Your task to perform on an android device: Search for logitech g910 on walmart, select the first entry, add it to the cart, then select checkout. Image 0: 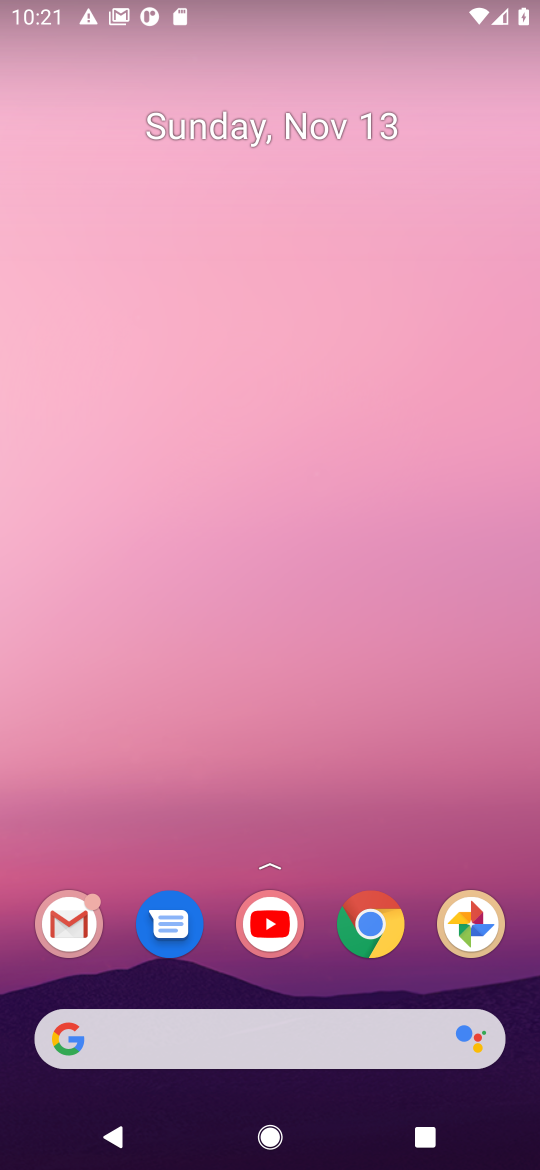
Step 0: click (369, 929)
Your task to perform on an android device: Search for logitech g910 on walmart, select the first entry, add it to the cart, then select checkout. Image 1: 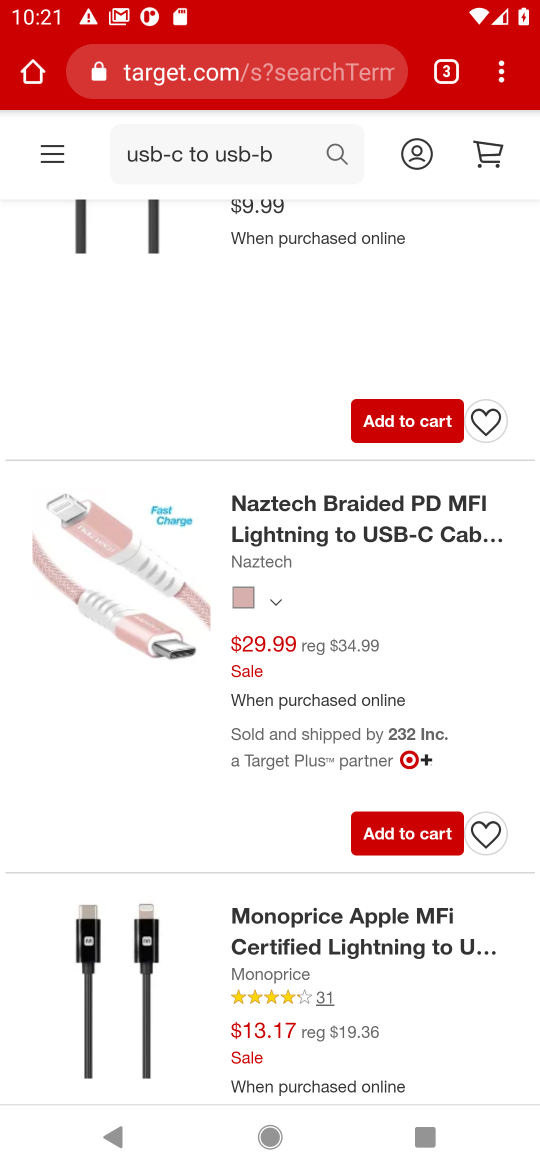
Step 1: click (235, 84)
Your task to perform on an android device: Search for logitech g910 on walmart, select the first entry, add it to the cart, then select checkout. Image 2: 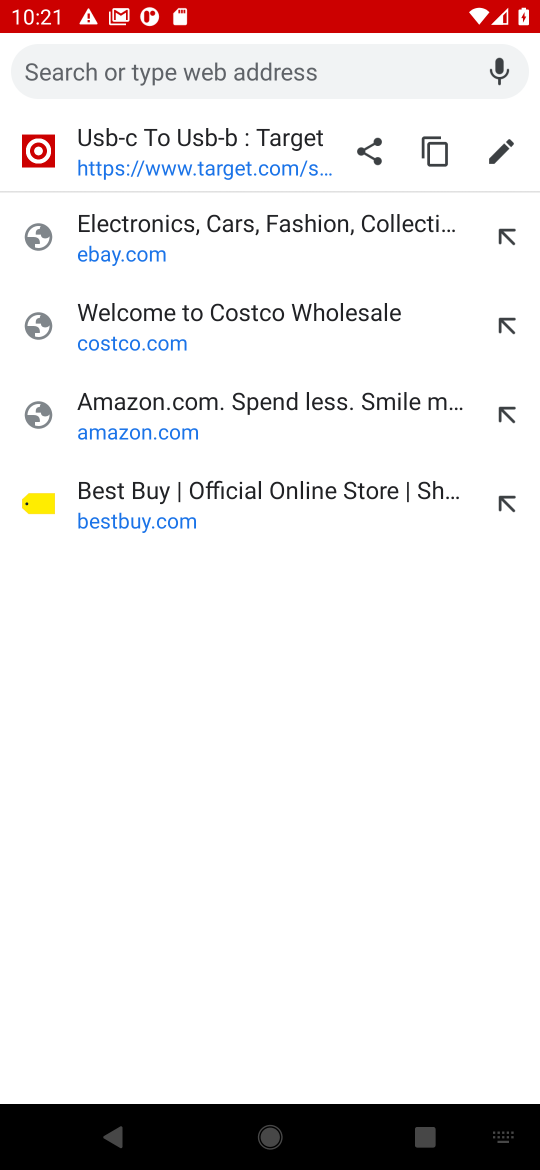
Step 2: type "walmart.com"
Your task to perform on an android device: Search for logitech g910 on walmart, select the first entry, add it to the cart, then select checkout. Image 3: 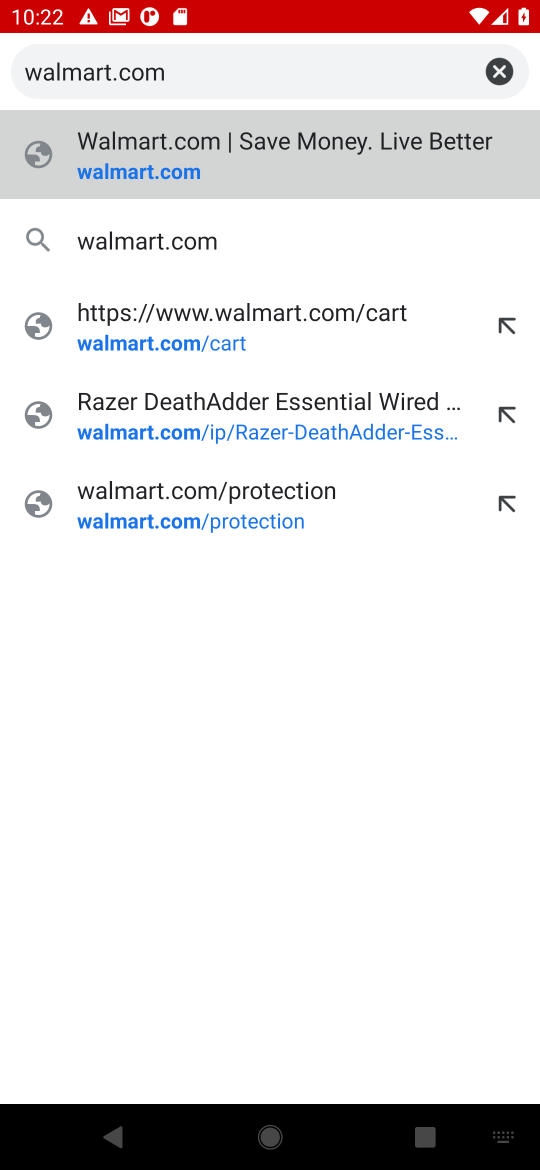
Step 3: click (119, 175)
Your task to perform on an android device: Search for logitech g910 on walmart, select the first entry, add it to the cart, then select checkout. Image 4: 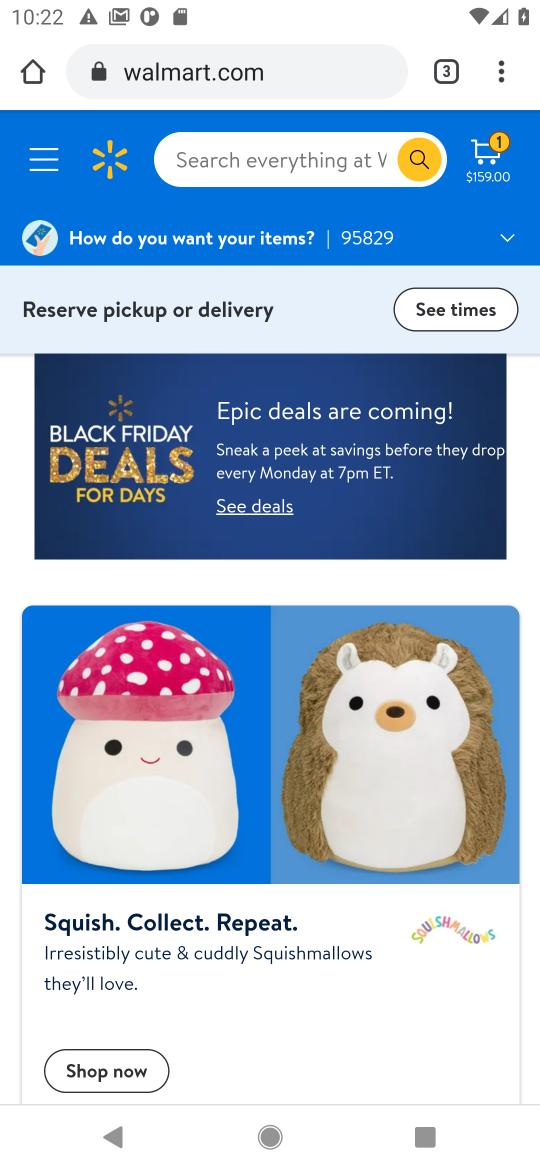
Step 4: click (227, 164)
Your task to perform on an android device: Search for logitech g910 on walmart, select the first entry, add it to the cart, then select checkout. Image 5: 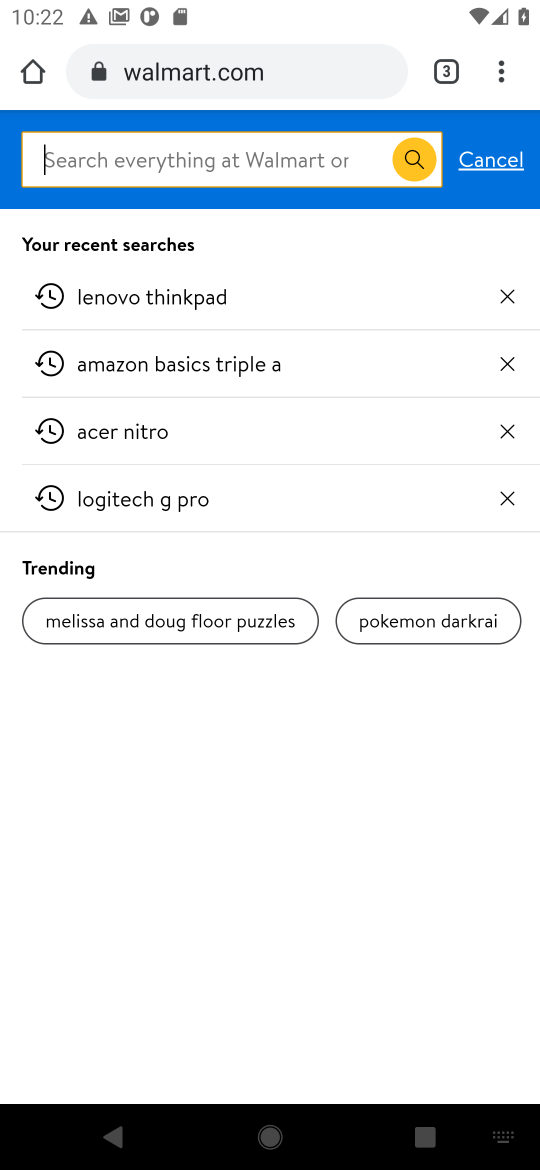
Step 5: type "logitech g910"
Your task to perform on an android device: Search for logitech g910 on walmart, select the first entry, add it to the cart, then select checkout. Image 6: 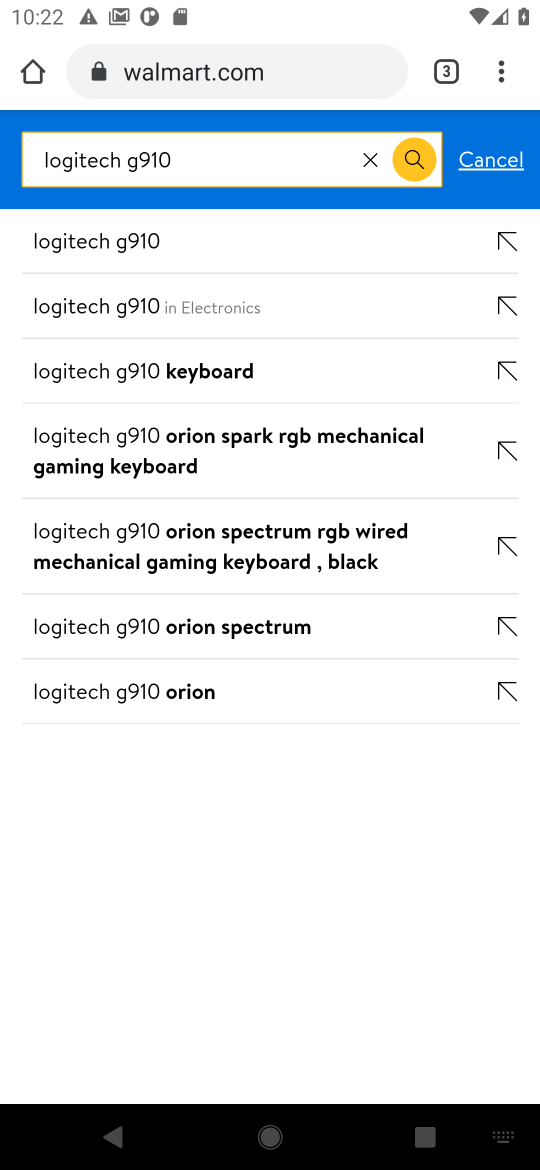
Step 6: click (65, 251)
Your task to perform on an android device: Search for logitech g910 on walmart, select the first entry, add it to the cart, then select checkout. Image 7: 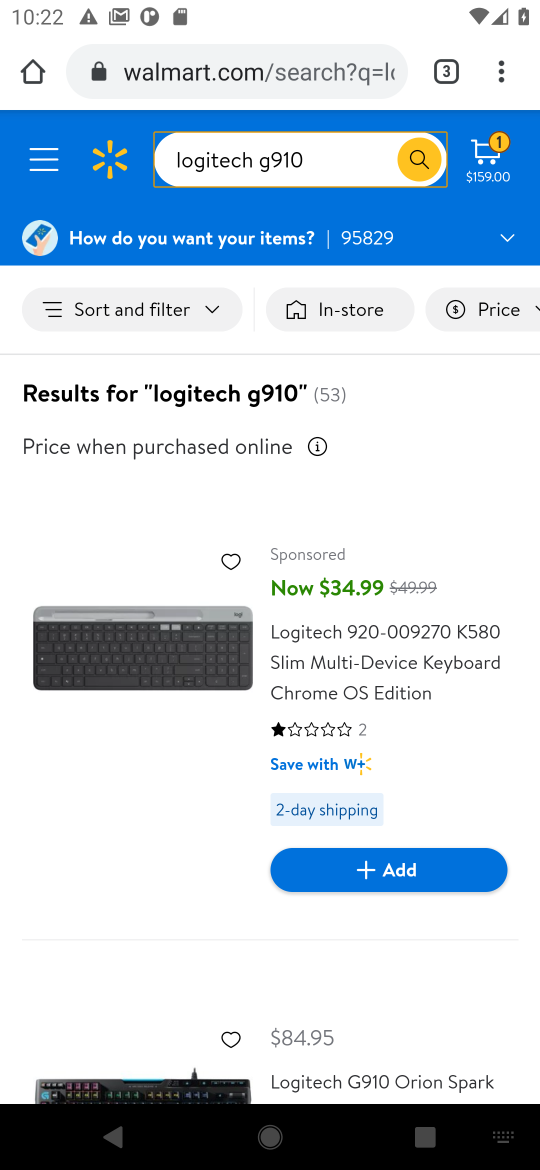
Step 7: task complete